Your task to perform on an android device: turn on showing notifications on the lock screen Image 0: 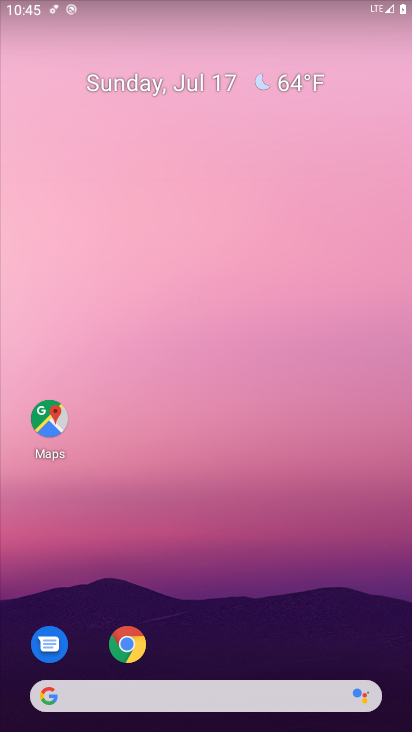
Step 0: press home button
Your task to perform on an android device: turn on showing notifications on the lock screen Image 1: 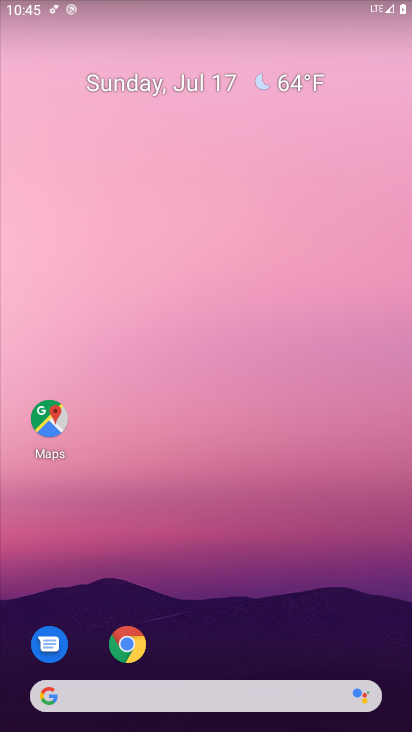
Step 1: click (262, 34)
Your task to perform on an android device: turn on showing notifications on the lock screen Image 2: 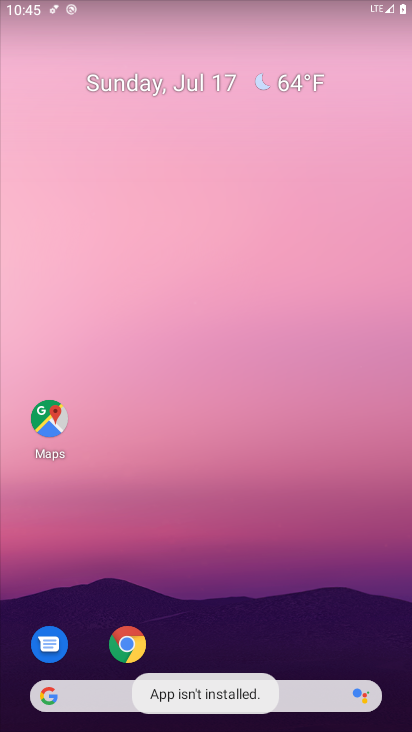
Step 2: press home button
Your task to perform on an android device: turn on showing notifications on the lock screen Image 3: 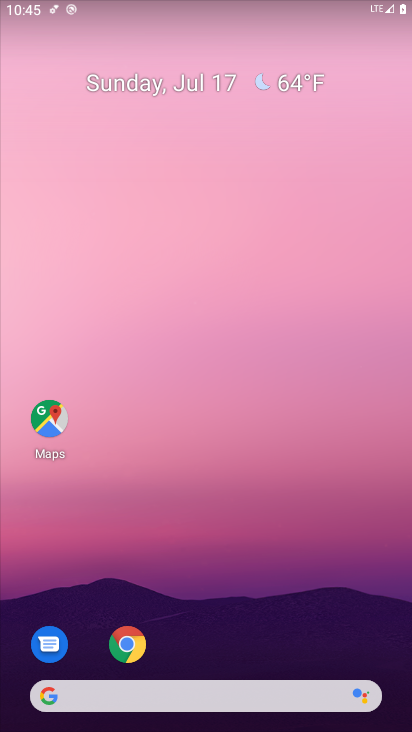
Step 3: drag from (270, 629) to (221, 41)
Your task to perform on an android device: turn on showing notifications on the lock screen Image 4: 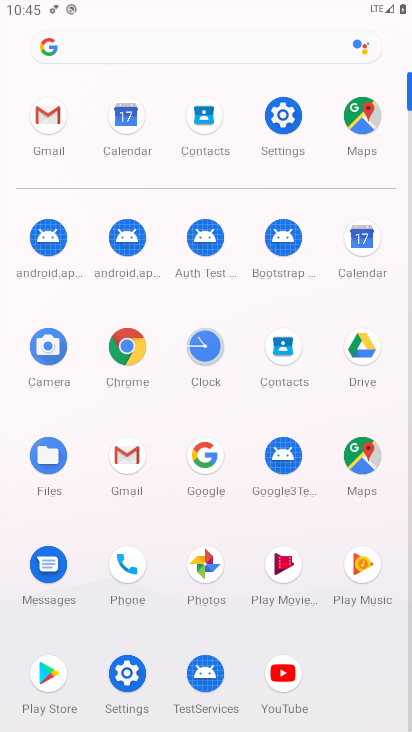
Step 4: click (284, 117)
Your task to perform on an android device: turn on showing notifications on the lock screen Image 5: 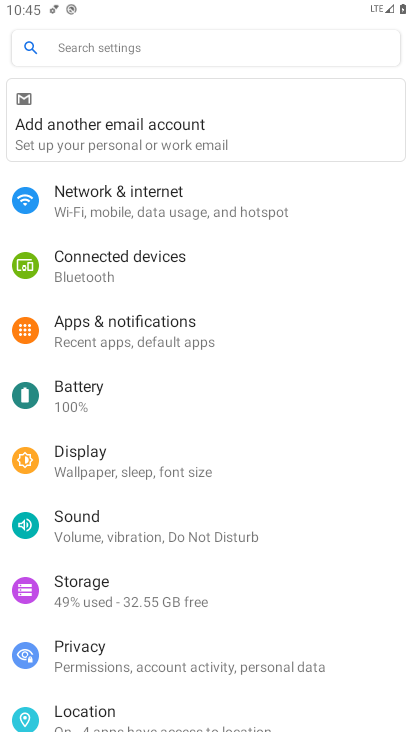
Step 5: click (127, 332)
Your task to perform on an android device: turn on showing notifications on the lock screen Image 6: 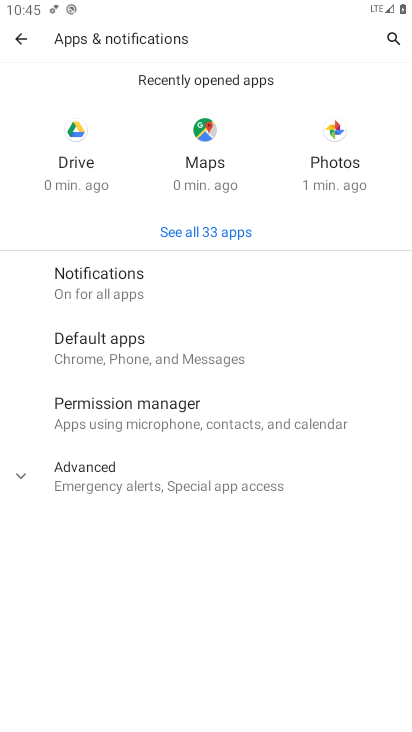
Step 6: click (111, 278)
Your task to perform on an android device: turn on showing notifications on the lock screen Image 7: 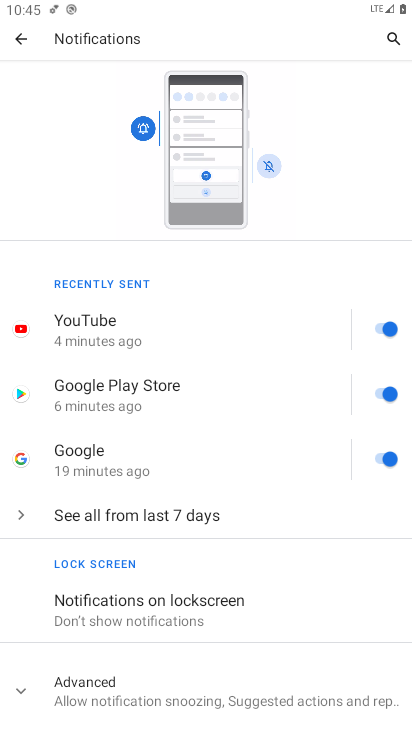
Step 7: click (177, 621)
Your task to perform on an android device: turn on showing notifications on the lock screen Image 8: 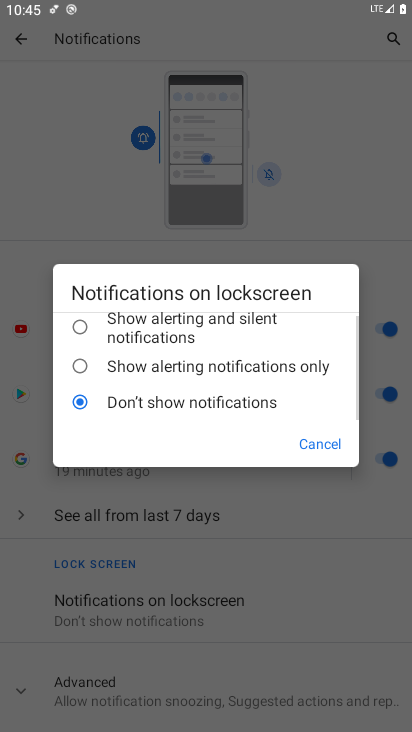
Step 8: click (80, 329)
Your task to perform on an android device: turn on showing notifications on the lock screen Image 9: 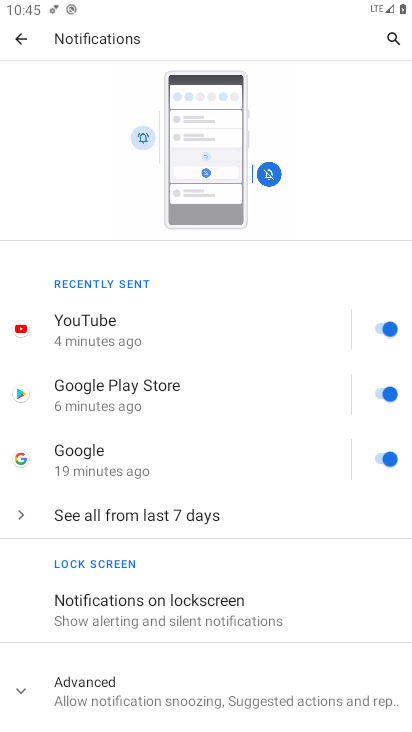
Step 9: task complete